Your task to perform on an android device: turn pop-ups on in chrome Image 0: 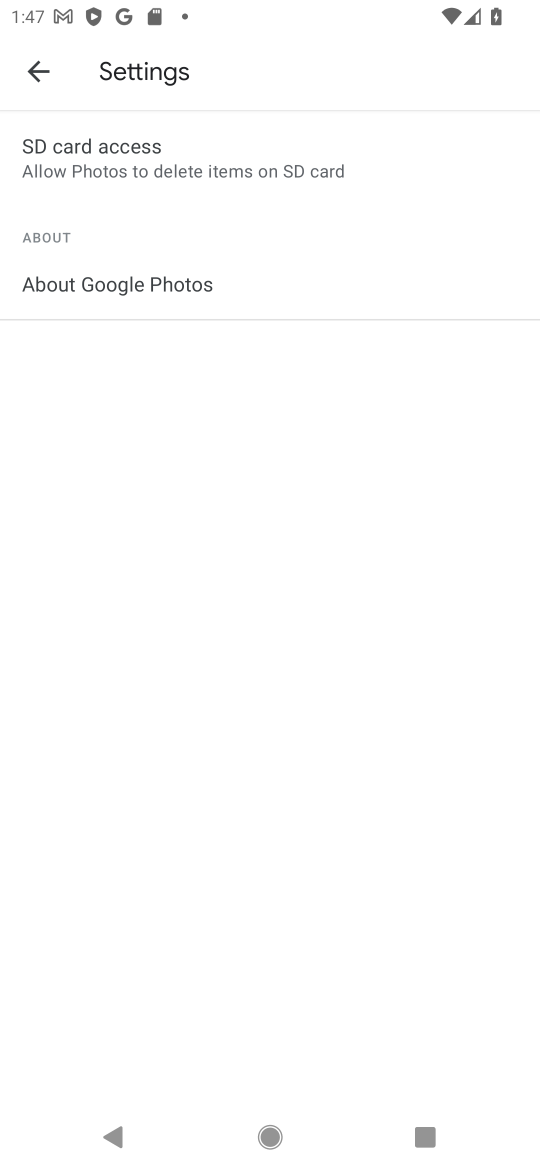
Step 0: press home button
Your task to perform on an android device: turn pop-ups on in chrome Image 1: 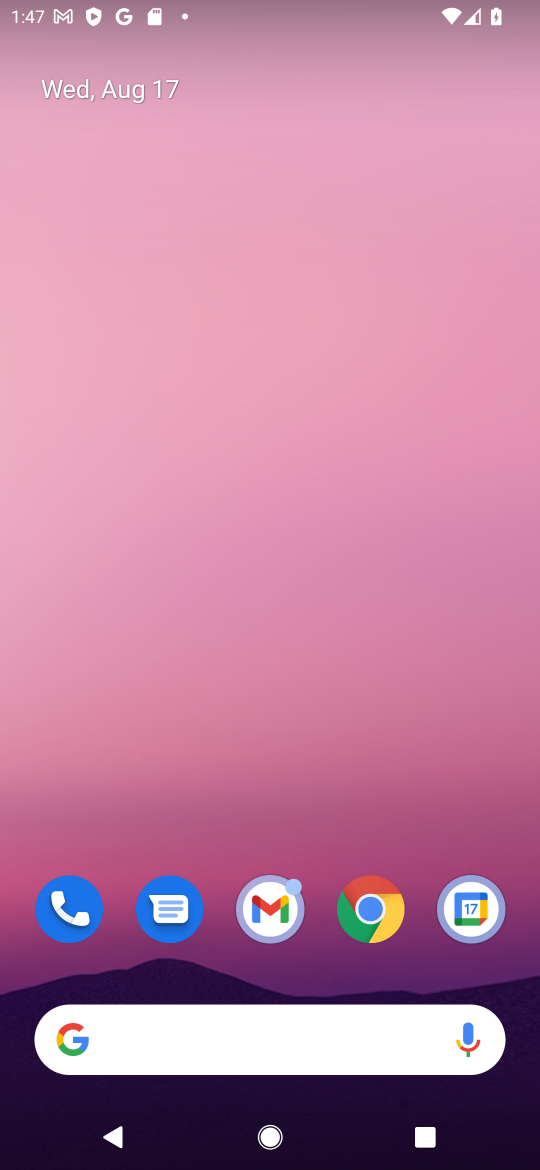
Step 1: drag from (159, 777) to (323, 146)
Your task to perform on an android device: turn pop-ups on in chrome Image 2: 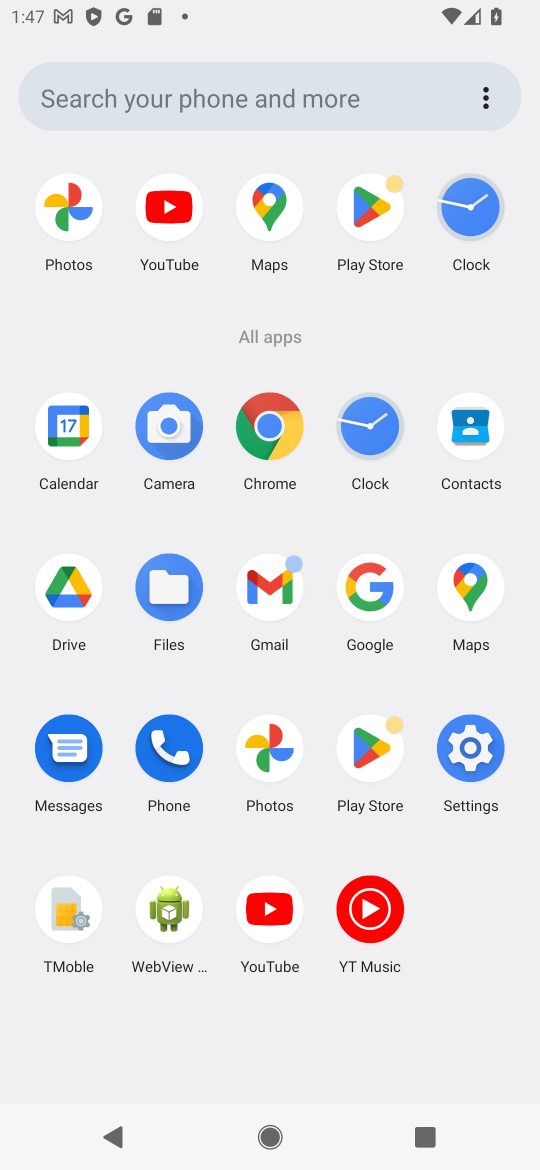
Step 2: click (276, 438)
Your task to perform on an android device: turn pop-ups on in chrome Image 3: 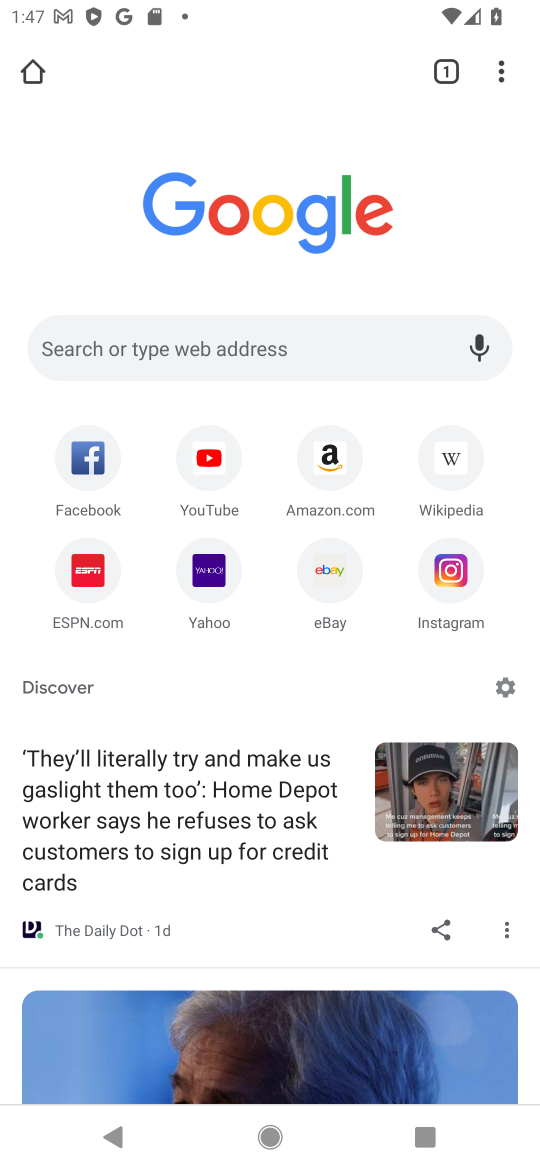
Step 3: task complete